Your task to perform on an android device: toggle translation in the chrome app Image 0: 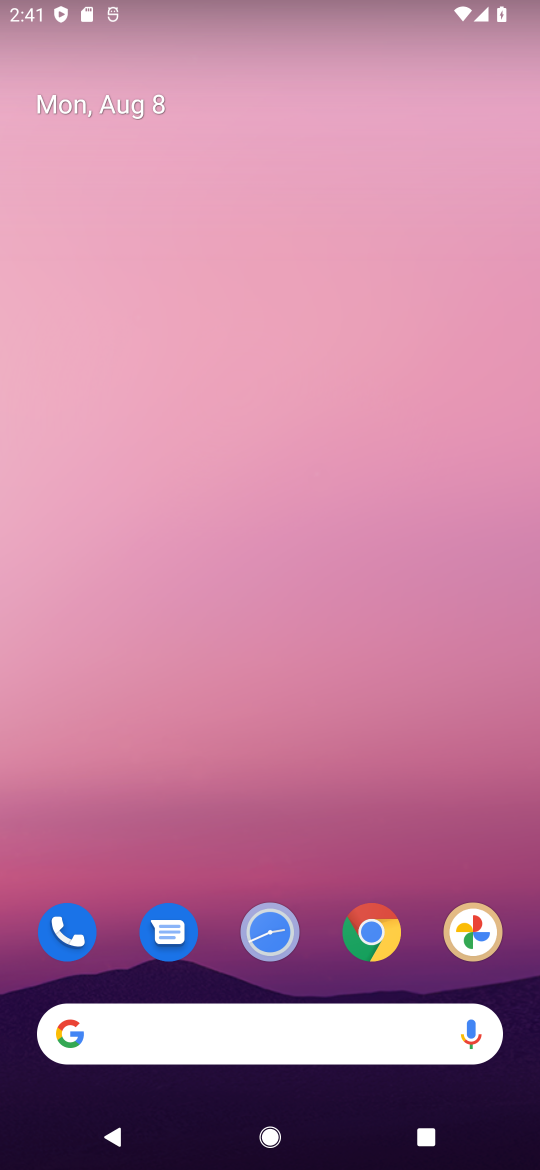
Step 0: drag from (408, 856) to (538, 109)
Your task to perform on an android device: toggle translation in the chrome app Image 1: 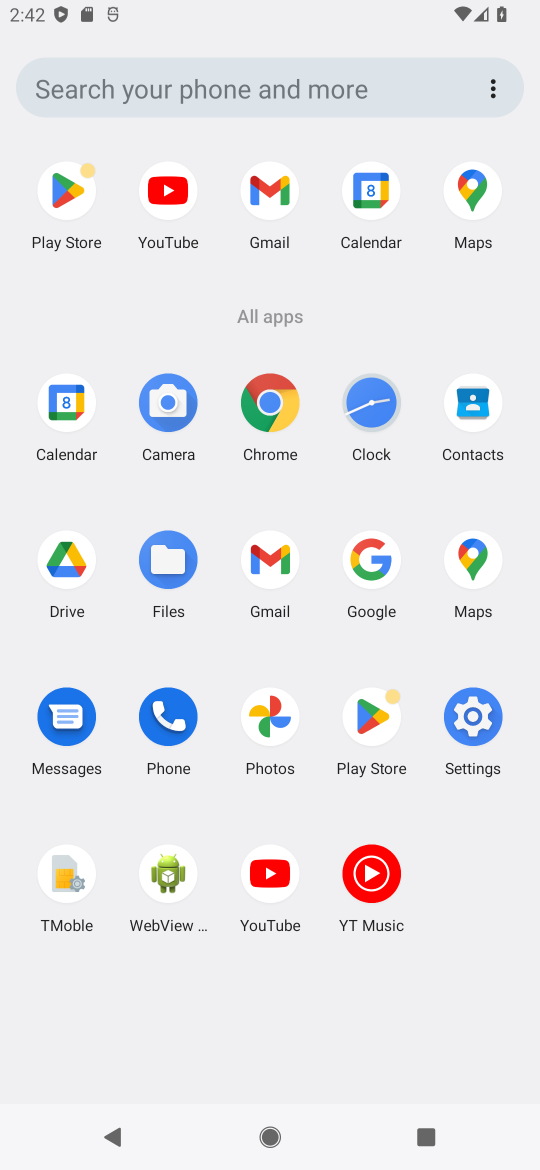
Step 1: click (275, 399)
Your task to perform on an android device: toggle translation in the chrome app Image 2: 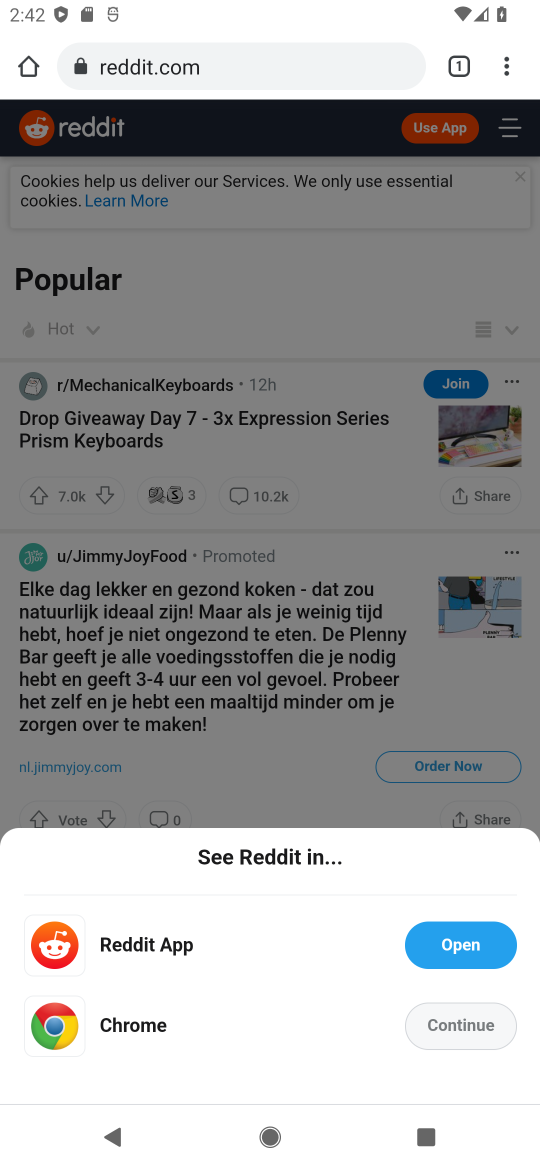
Step 2: drag from (519, 53) to (354, 750)
Your task to perform on an android device: toggle translation in the chrome app Image 3: 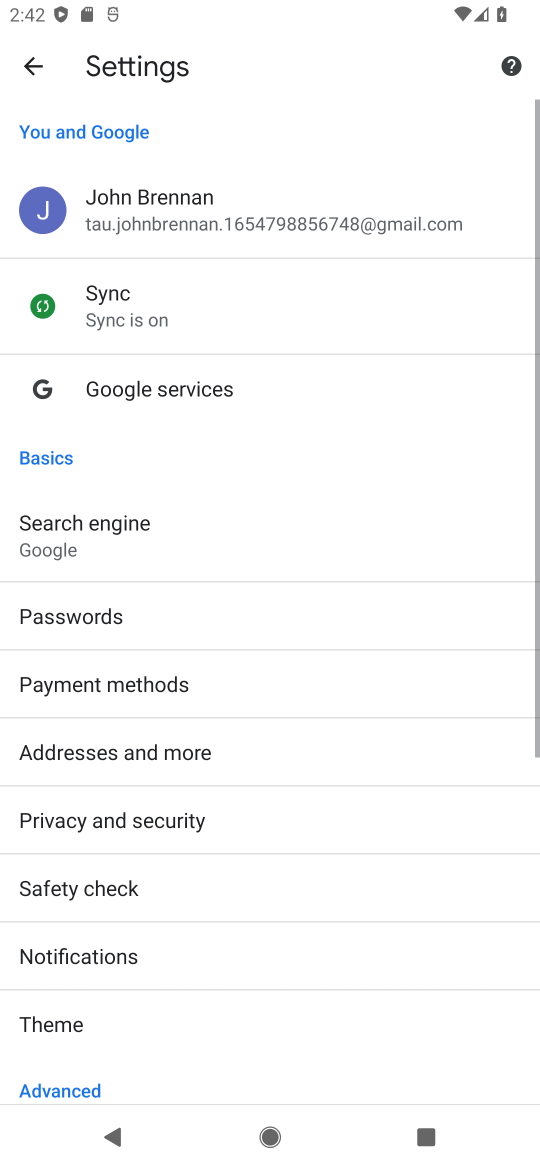
Step 3: drag from (298, 972) to (373, 110)
Your task to perform on an android device: toggle translation in the chrome app Image 4: 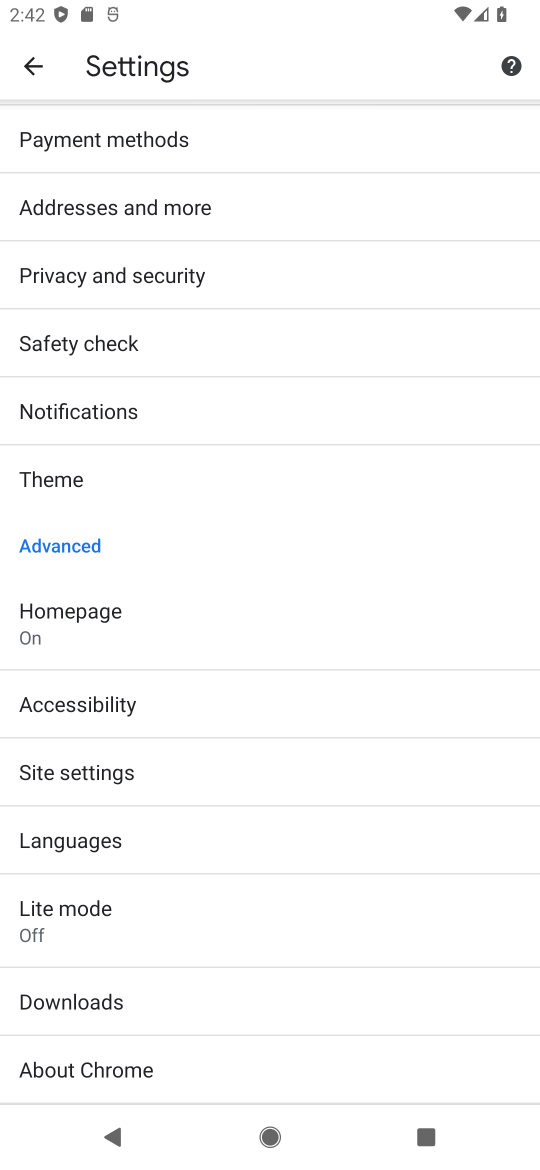
Step 4: click (69, 840)
Your task to perform on an android device: toggle translation in the chrome app Image 5: 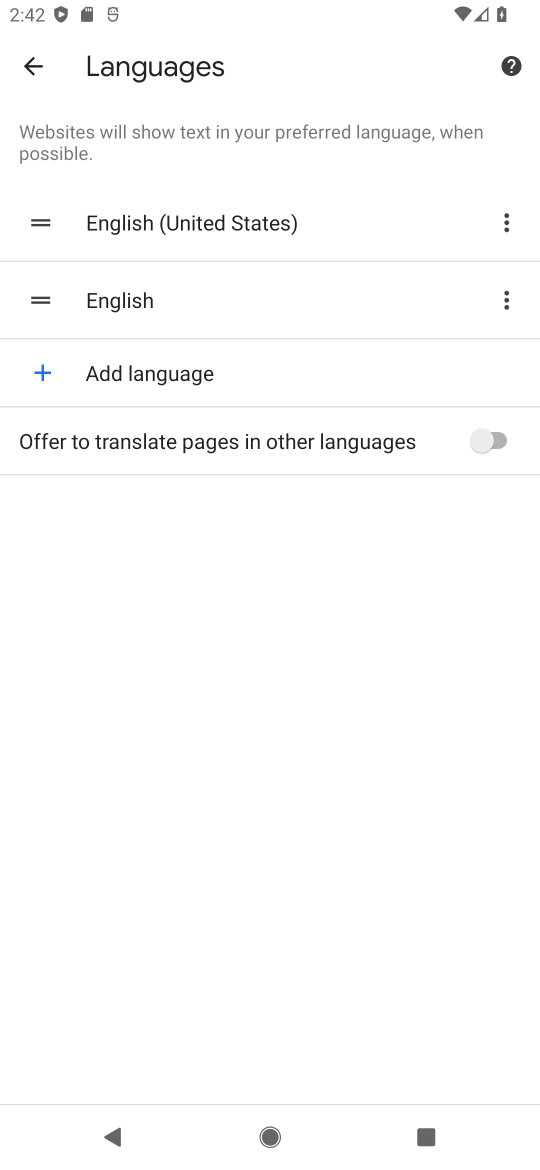
Step 5: click (488, 441)
Your task to perform on an android device: toggle translation in the chrome app Image 6: 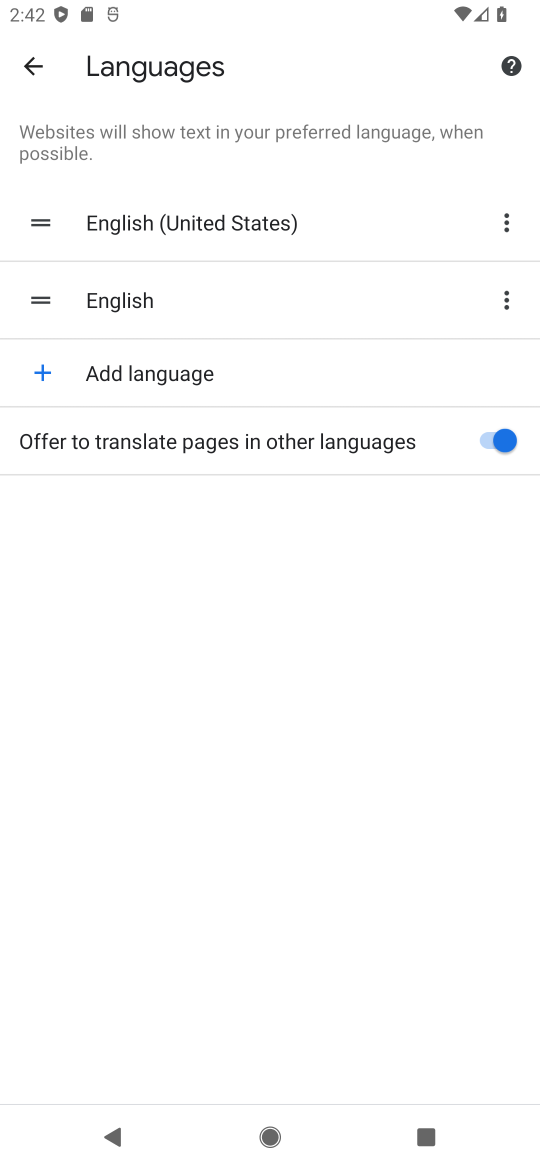
Step 6: task complete